Your task to perform on an android device: change the upload size in google photos Image 0: 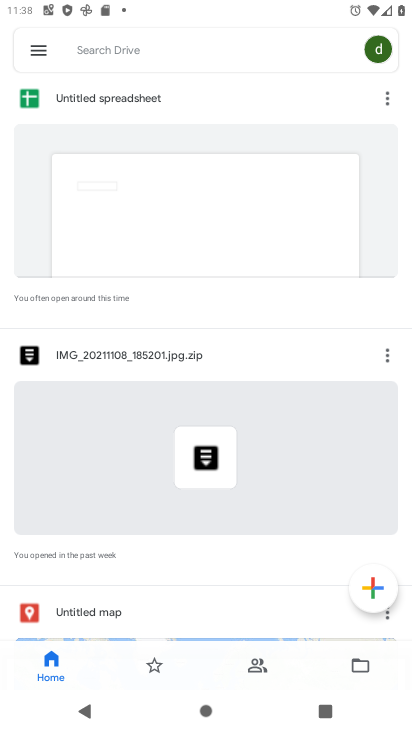
Step 0: press home button
Your task to perform on an android device: change the upload size in google photos Image 1: 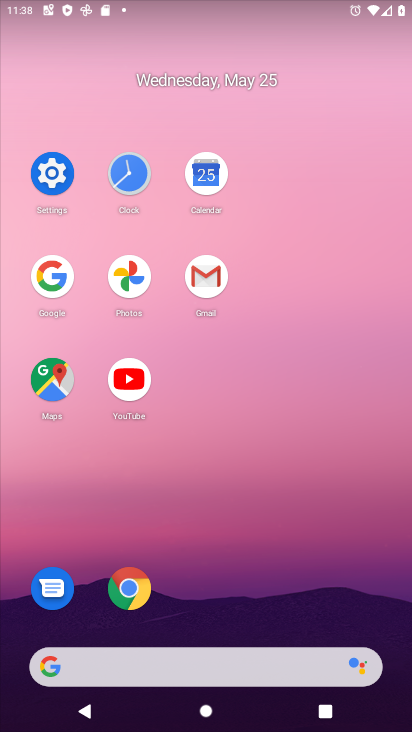
Step 1: click (123, 289)
Your task to perform on an android device: change the upload size in google photos Image 2: 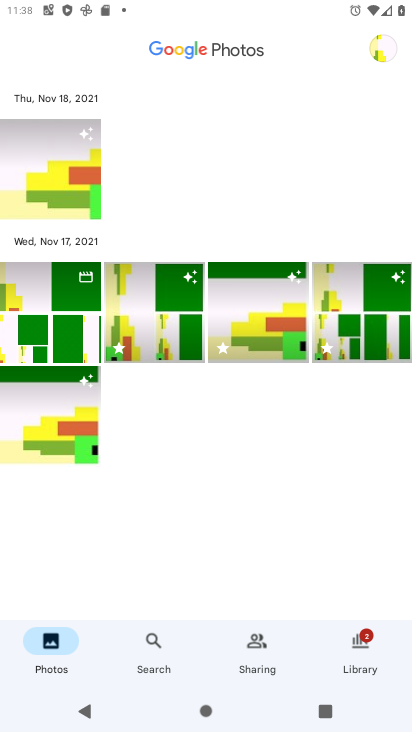
Step 2: click (376, 56)
Your task to perform on an android device: change the upload size in google photos Image 3: 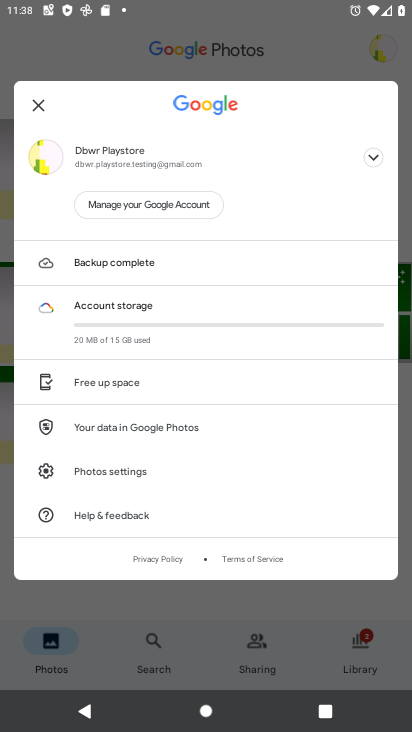
Step 3: click (147, 474)
Your task to perform on an android device: change the upload size in google photos Image 4: 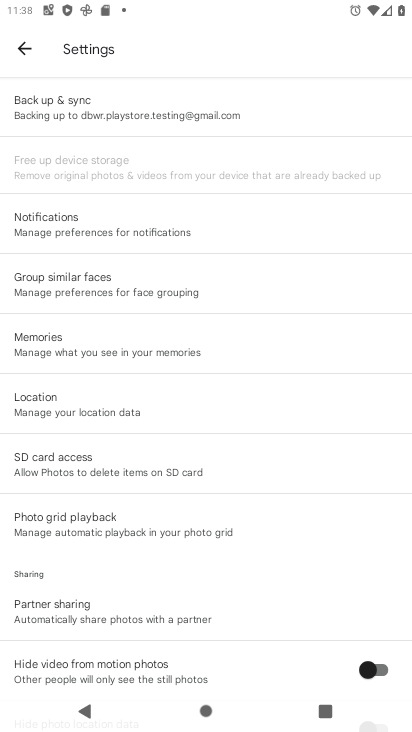
Step 4: click (164, 110)
Your task to perform on an android device: change the upload size in google photos Image 5: 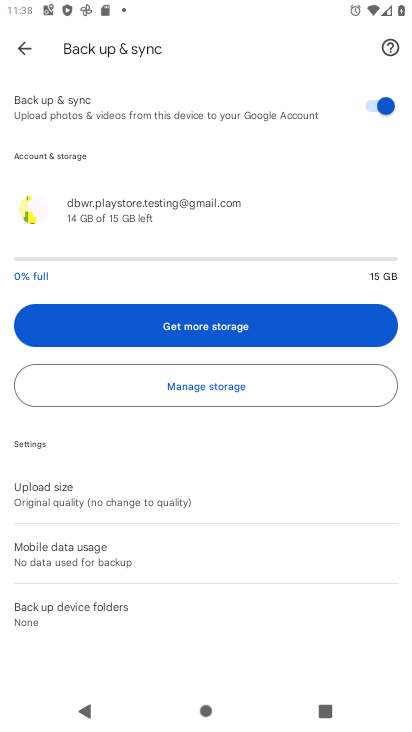
Step 5: click (162, 488)
Your task to perform on an android device: change the upload size in google photos Image 6: 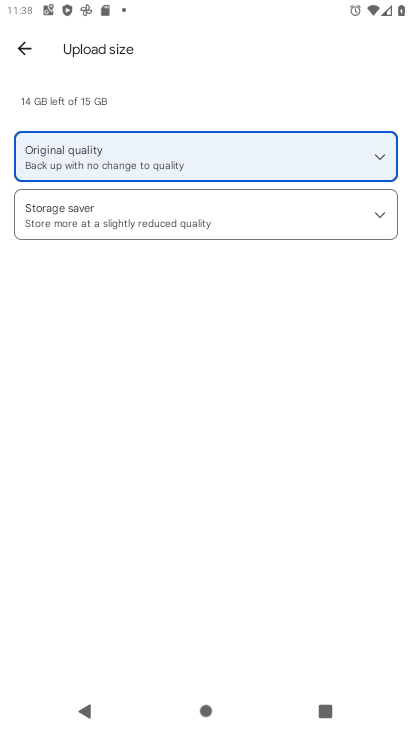
Step 6: click (219, 196)
Your task to perform on an android device: change the upload size in google photos Image 7: 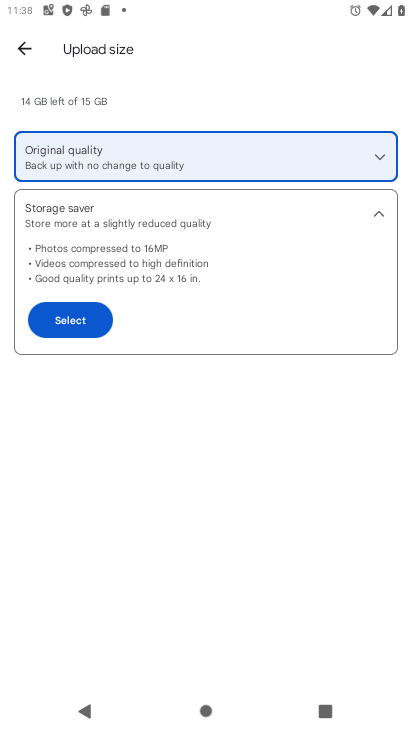
Step 7: click (98, 309)
Your task to perform on an android device: change the upload size in google photos Image 8: 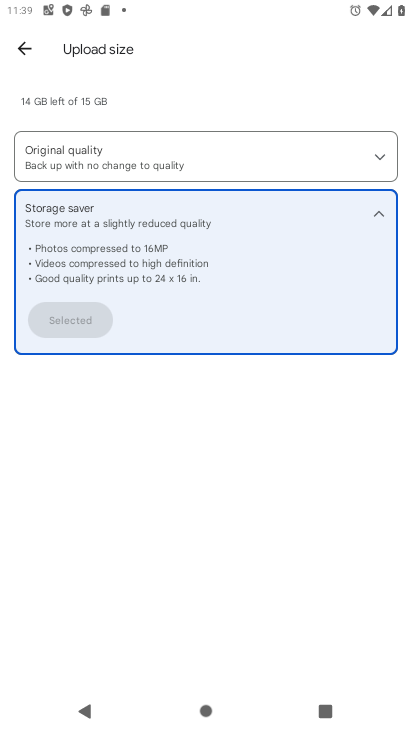
Step 8: task complete